Your task to perform on an android device: turn off sleep mode Image 0: 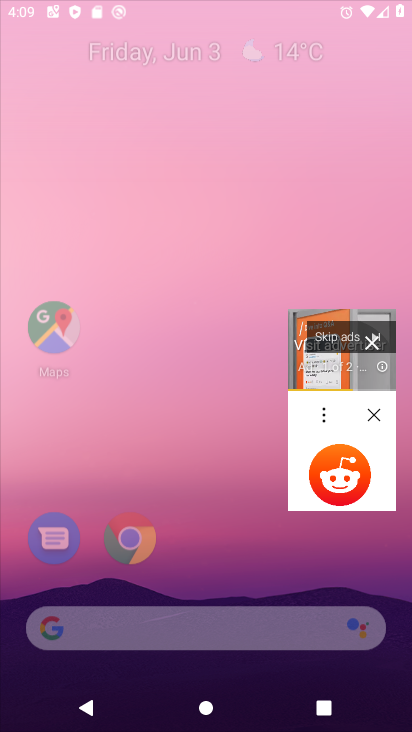
Step 0: drag from (385, 551) to (228, 372)
Your task to perform on an android device: turn off sleep mode Image 1: 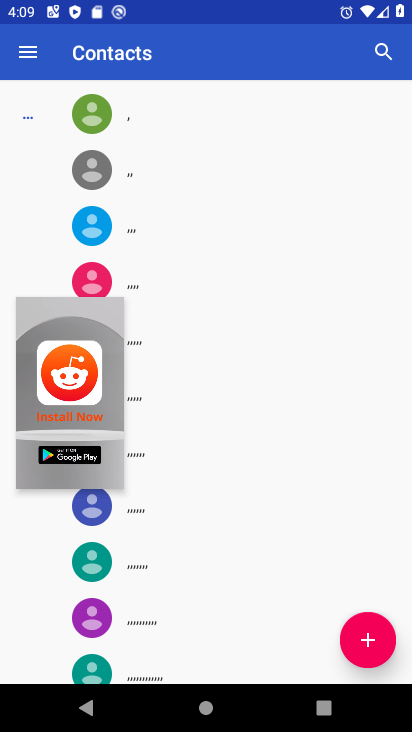
Step 1: drag from (68, 351) to (228, 696)
Your task to perform on an android device: turn off sleep mode Image 2: 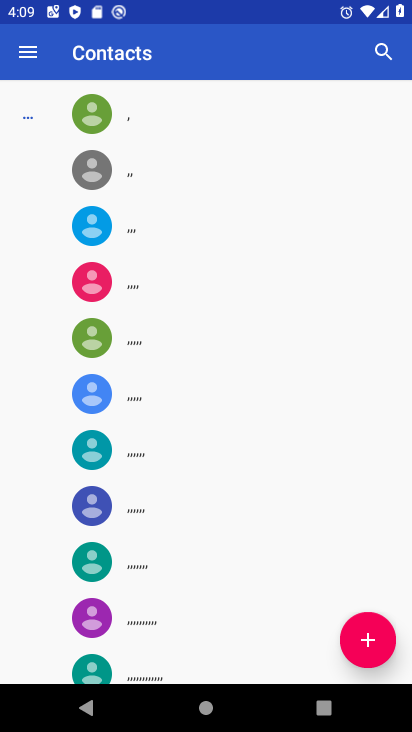
Step 2: press home button
Your task to perform on an android device: turn off sleep mode Image 3: 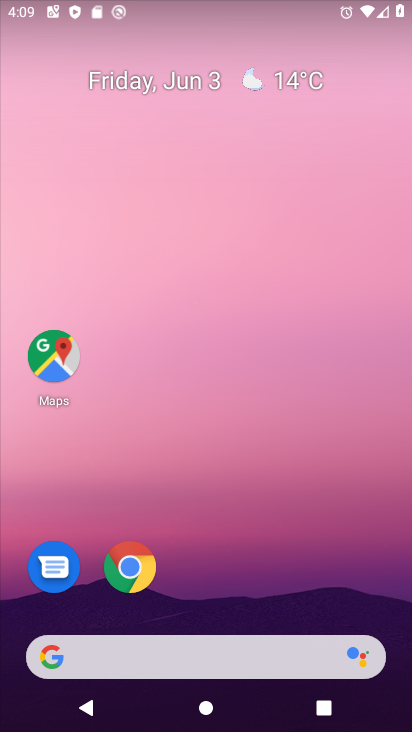
Step 3: drag from (264, 688) to (228, 296)
Your task to perform on an android device: turn off sleep mode Image 4: 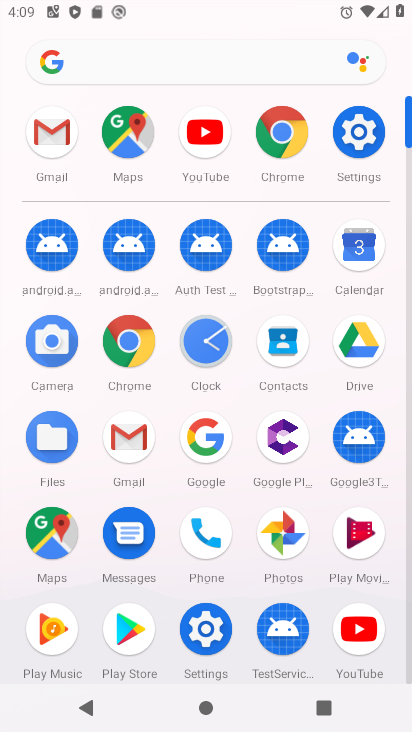
Step 4: click (194, 612)
Your task to perform on an android device: turn off sleep mode Image 5: 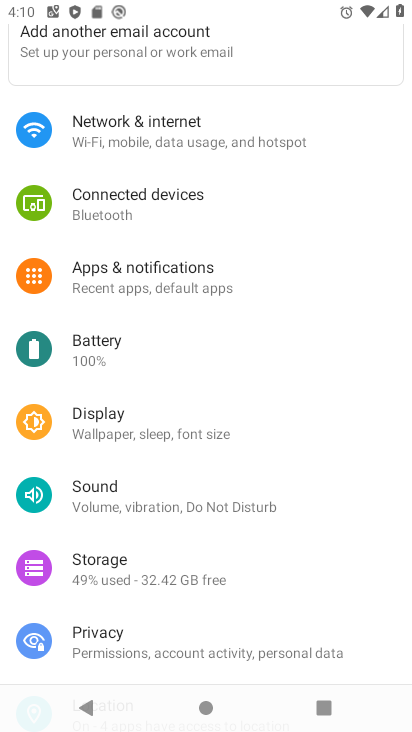
Step 5: drag from (99, 110) to (164, 367)
Your task to perform on an android device: turn off sleep mode Image 6: 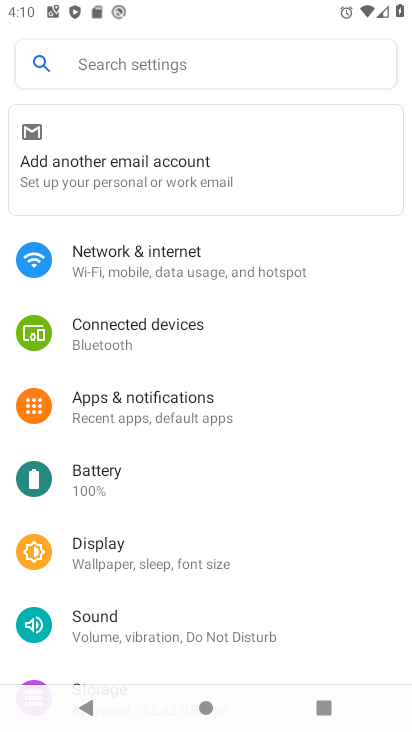
Step 6: click (73, 55)
Your task to perform on an android device: turn off sleep mode Image 7: 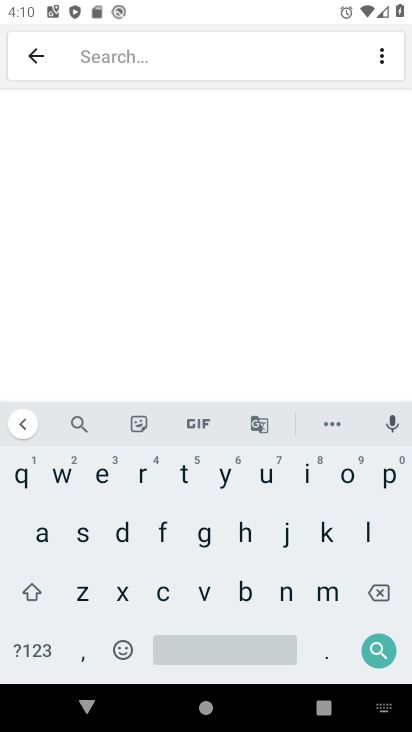
Step 7: click (83, 530)
Your task to perform on an android device: turn off sleep mode Image 8: 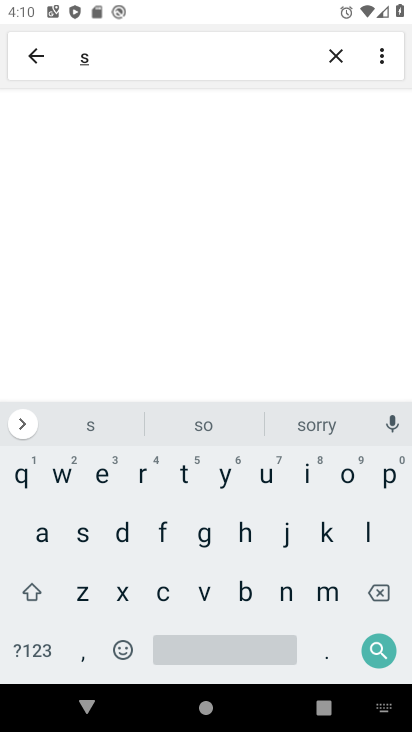
Step 8: click (379, 549)
Your task to perform on an android device: turn off sleep mode Image 9: 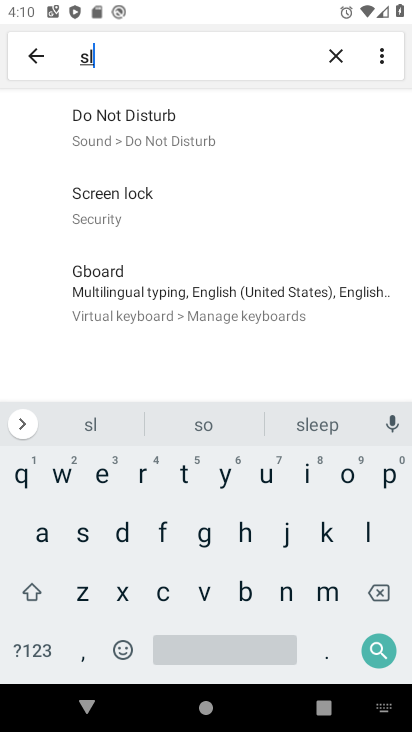
Step 9: click (104, 473)
Your task to perform on an android device: turn off sleep mode Image 10: 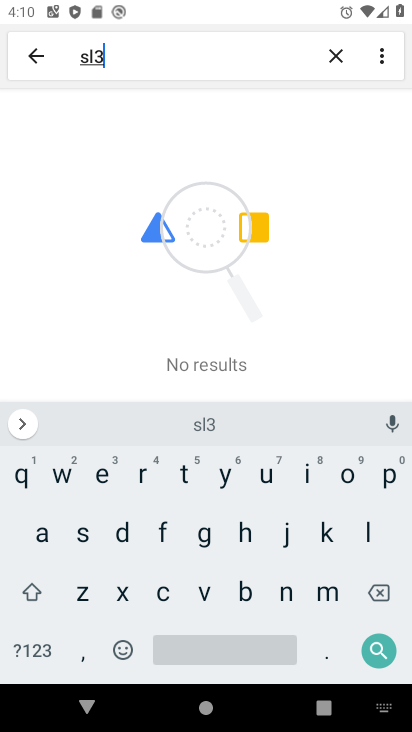
Step 10: click (375, 596)
Your task to perform on an android device: turn off sleep mode Image 11: 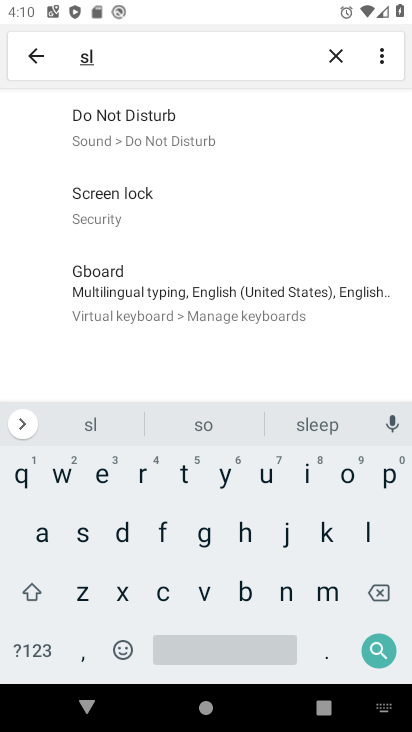
Step 11: click (123, 142)
Your task to perform on an android device: turn off sleep mode Image 12: 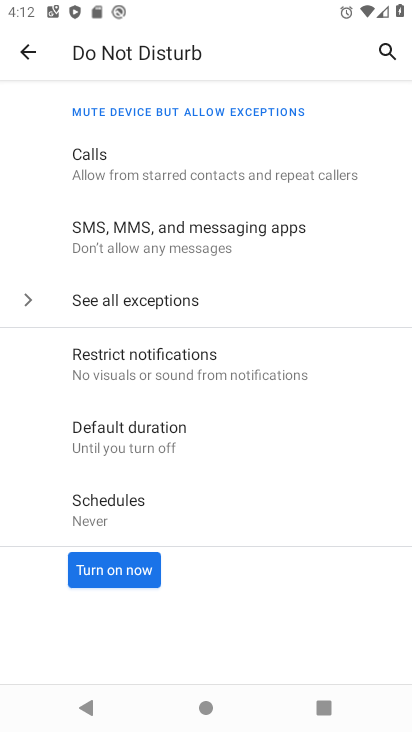
Step 12: task complete